Your task to perform on an android device: delete a single message in the gmail app Image 0: 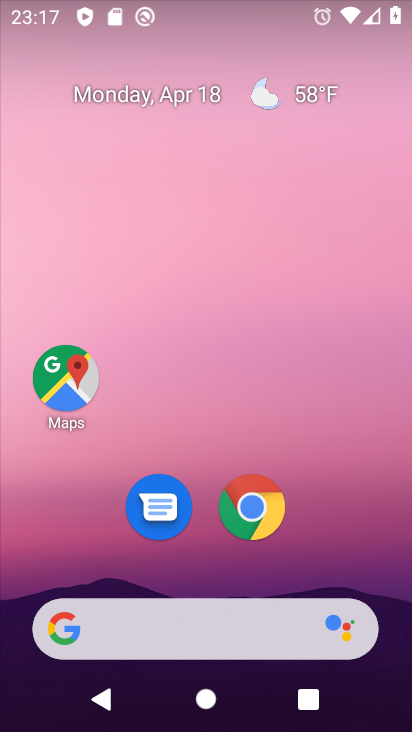
Step 0: drag from (198, 579) to (237, 44)
Your task to perform on an android device: delete a single message in the gmail app Image 1: 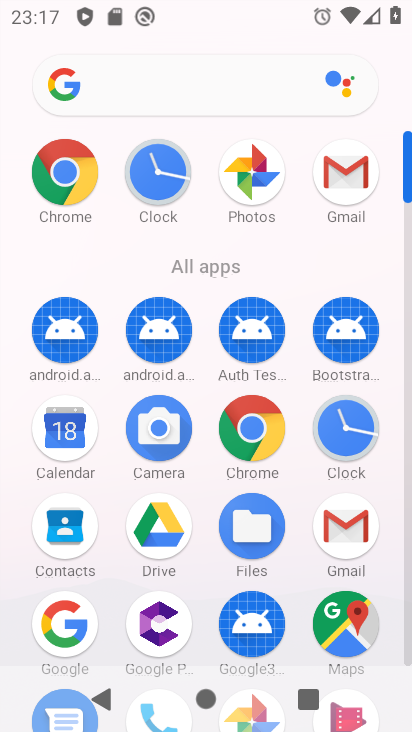
Step 1: click (347, 180)
Your task to perform on an android device: delete a single message in the gmail app Image 2: 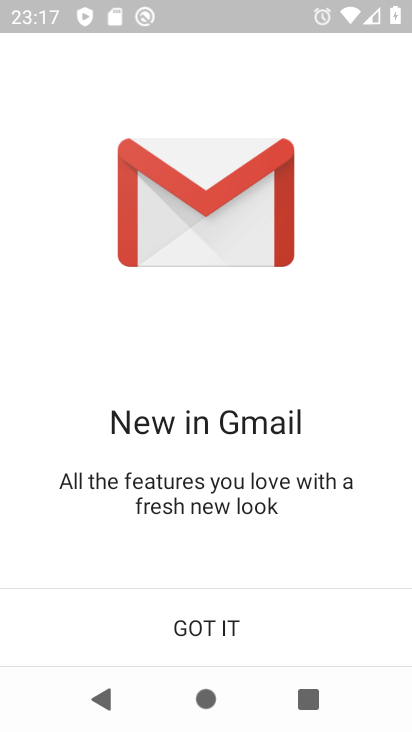
Step 2: click (185, 619)
Your task to perform on an android device: delete a single message in the gmail app Image 3: 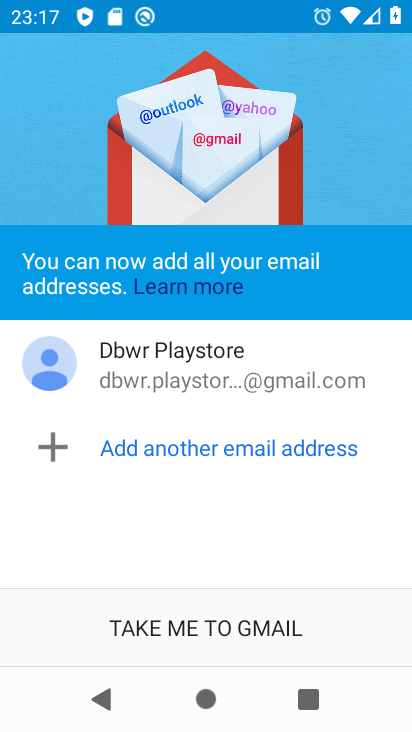
Step 3: click (185, 619)
Your task to perform on an android device: delete a single message in the gmail app Image 4: 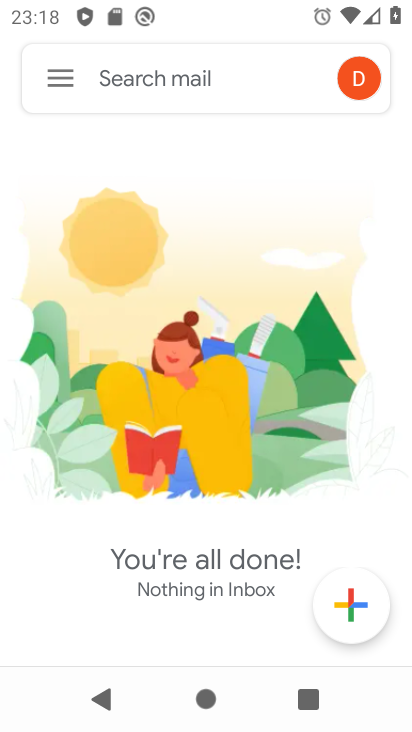
Step 4: click (185, 619)
Your task to perform on an android device: delete a single message in the gmail app Image 5: 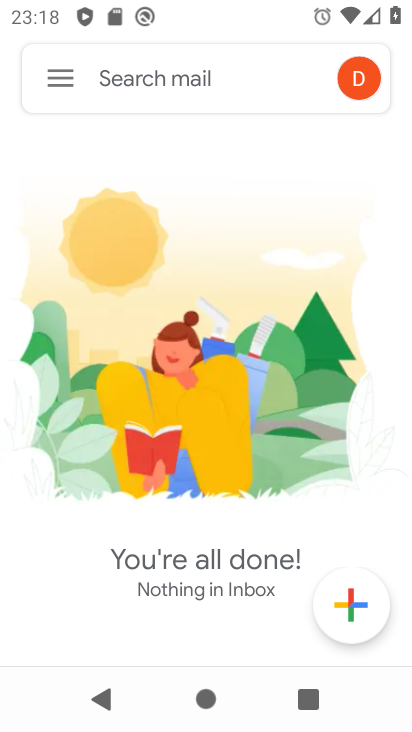
Step 5: task complete